Your task to perform on an android device: Open calendar and show me the fourth week of next month Image 0: 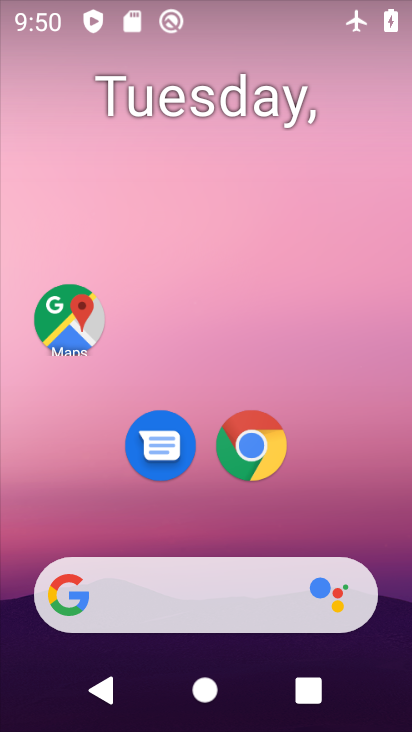
Step 0: drag from (401, 551) to (324, 41)
Your task to perform on an android device: Open calendar and show me the fourth week of next month Image 1: 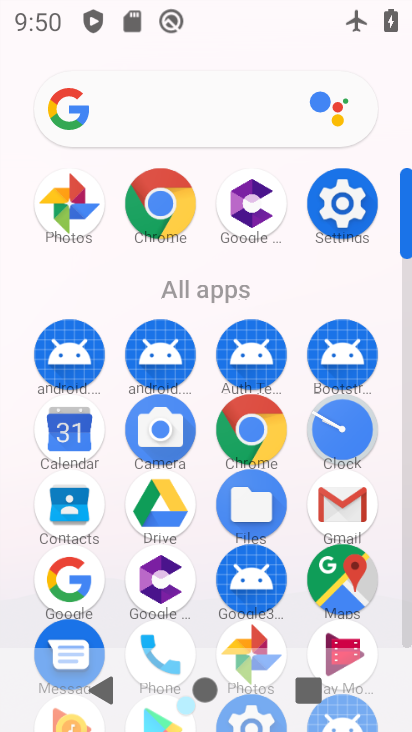
Step 1: click (85, 422)
Your task to perform on an android device: Open calendar and show me the fourth week of next month Image 2: 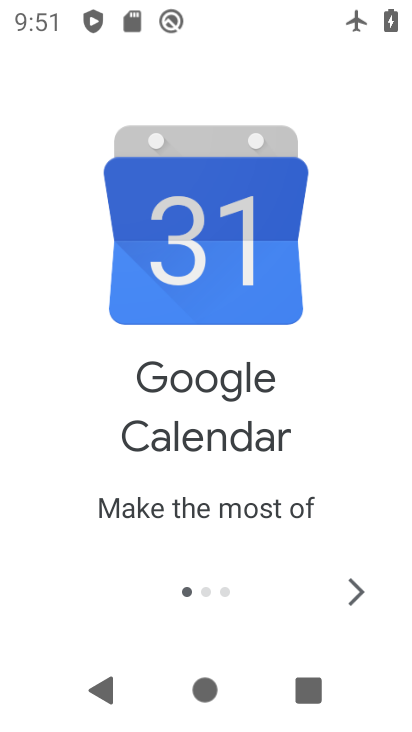
Step 2: click (357, 600)
Your task to perform on an android device: Open calendar and show me the fourth week of next month Image 3: 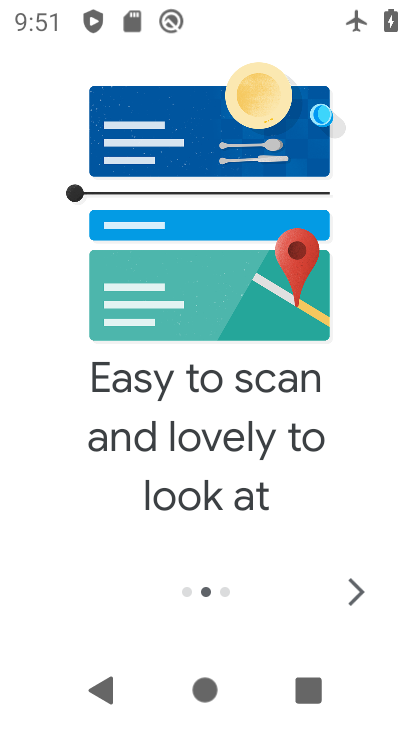
Step 3: click (357, 600)
Your task to perform on an android device: Open calendar and show me the fourth week of next month Image 4: 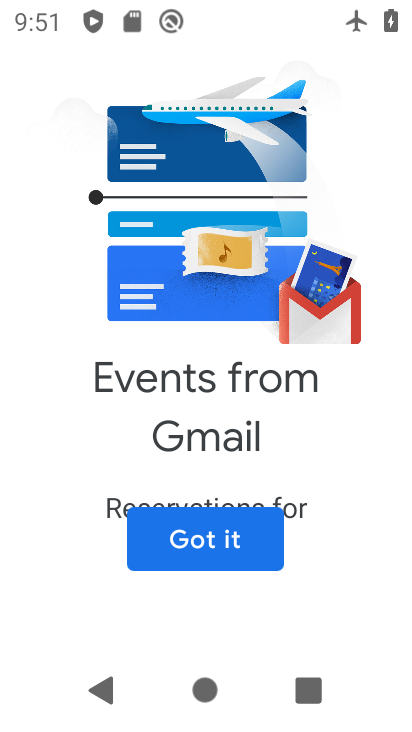
Step 4: click (257, 550)
Your task to perform on an android device: Open calendar and show me the fourth week of next month Image 5: 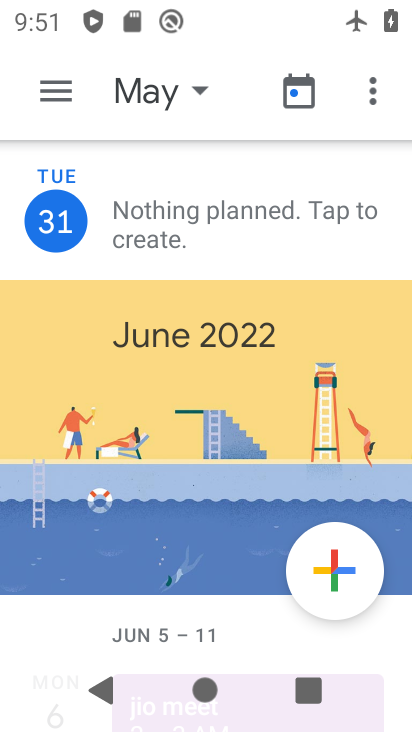
Step 5: click (156, 86)
Your task to perform on an android device: Open calendar and show me the fourth week of next month Image 6: 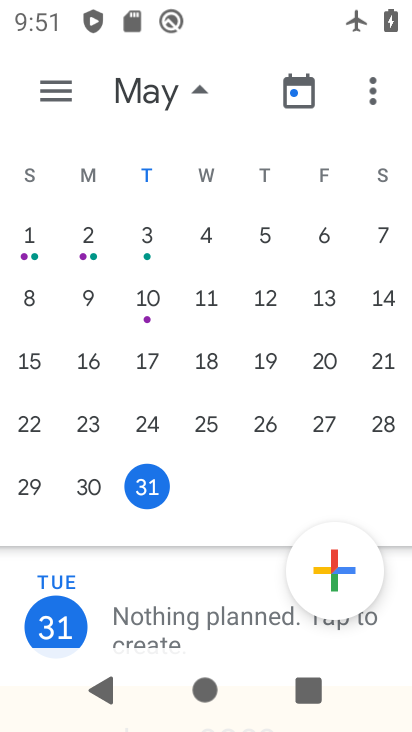
Step 6: drag from (340, 282) to (55, 281)
Your task to perform on an android device: Open calendar and show me the fourth week of next month Image 7: 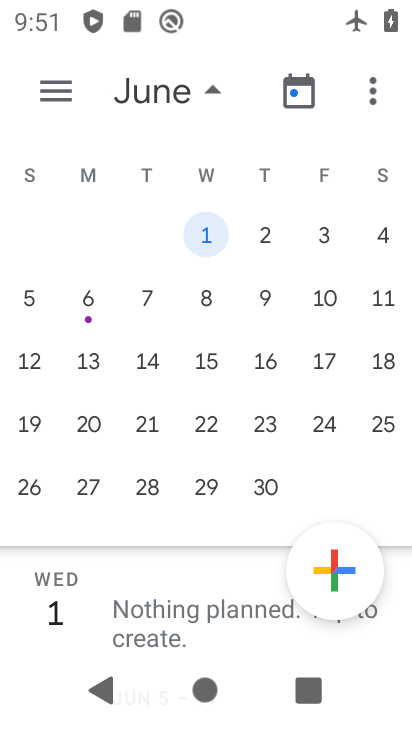
Step 7: click (148, 414)
Your task to perform on an android device: Open calendar and show me the fourth week of next month Image 8: 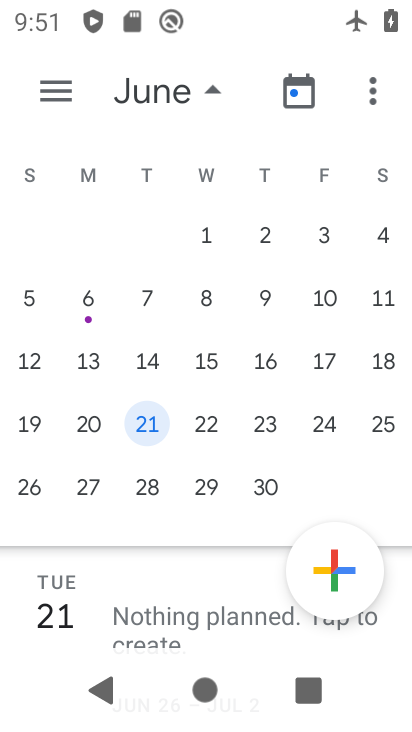
Step 8: click (62, 99)
Your task to perform on an android device: Open calendar and show me the fourth week of next month Image 9: 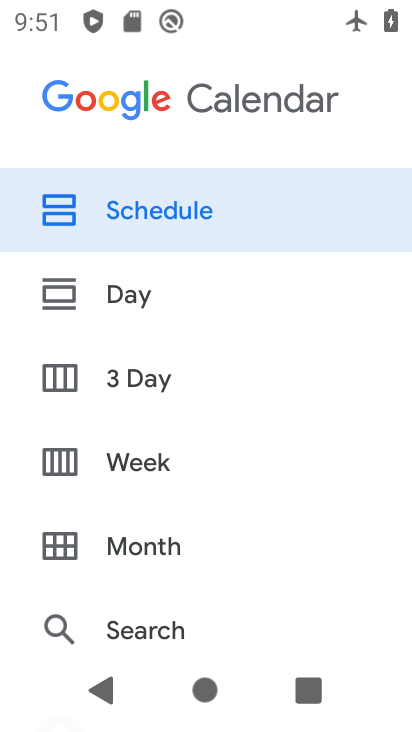
Step 9: click (149, 449)
Your task to perform on an android device: Open calendar and show me the fourth week of next month Image 10: 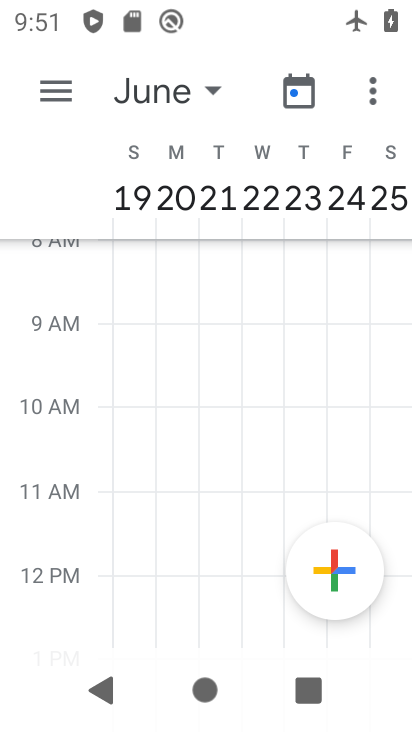
Step 10: task complete